Your task to perform on an android device: Open Google Chrome and open the bookmarks view Image 0: 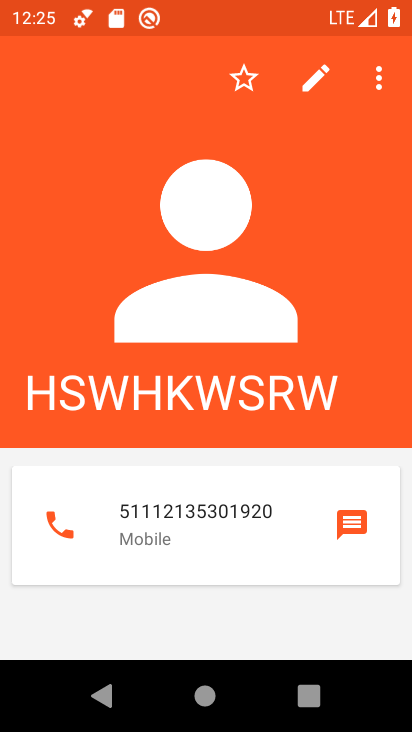
Step 0: press home button
Your task to perform on an android device: Open Google Chrome and open the bookmarks view Image 1: 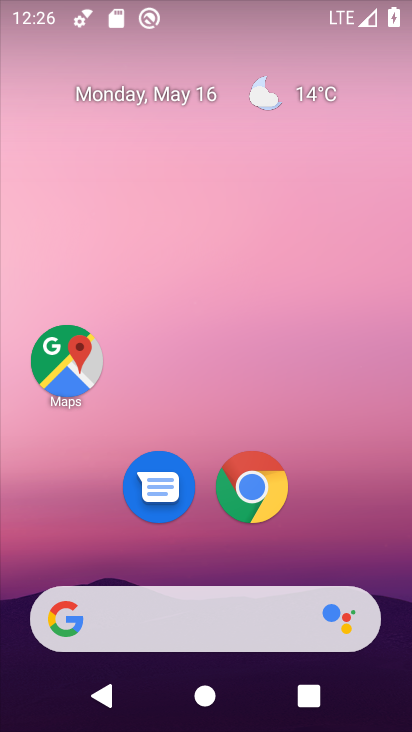
Step 1: click (268, 490)
Your task to perform on an android device: Open Google Chrome and open the bookmarks view Image 2: 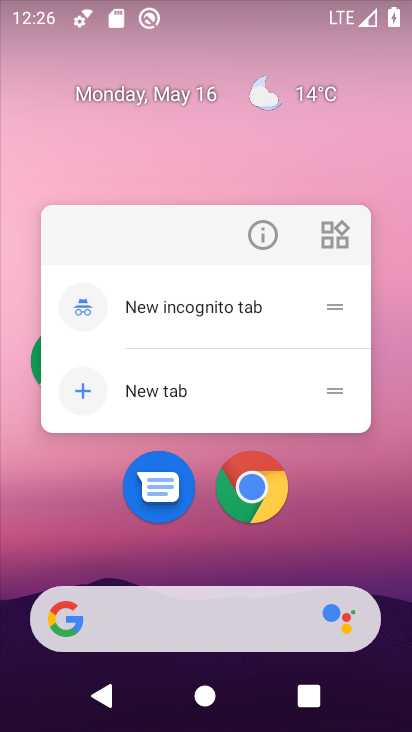
Step 2: click (273, 491)
Your task to perform on an android device: Open Google Chrome and open the bookmarks view Image 3: 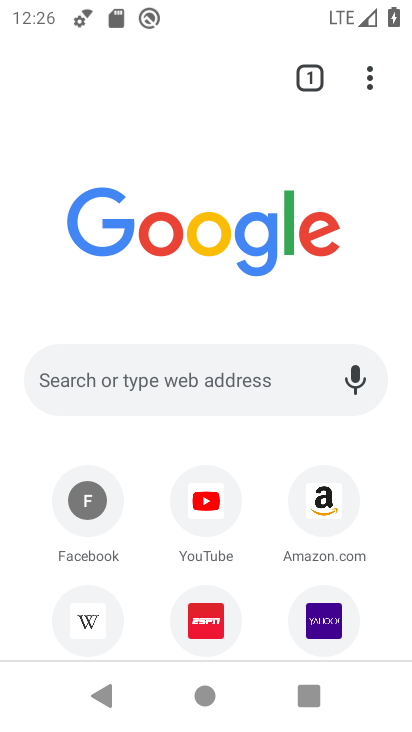
Step 3: task complete